Your task to perform on an android device: change notifications settings Image 0: 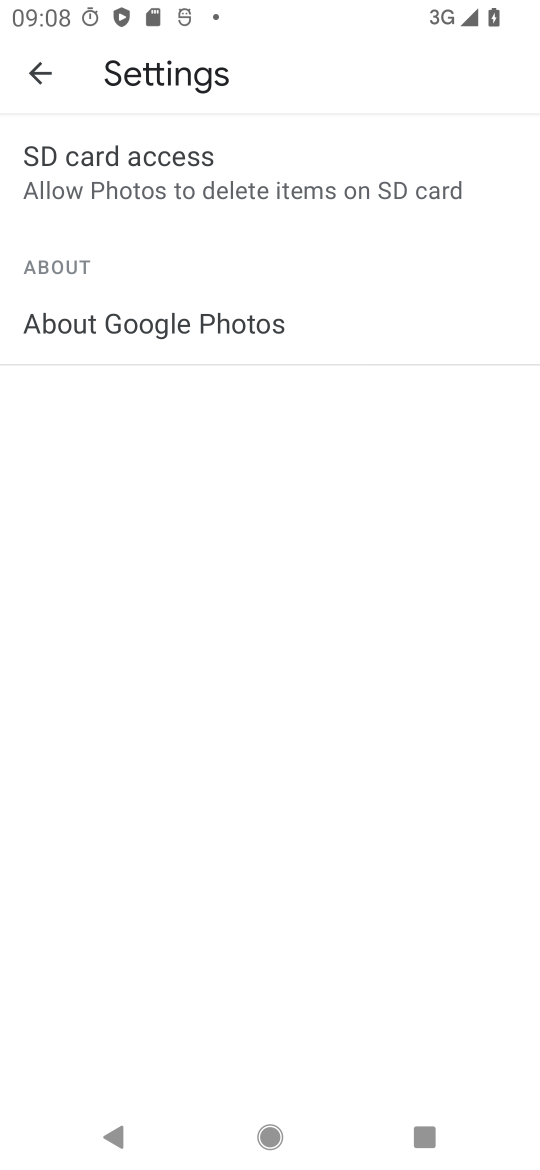
Step 0: press home button
Your task to perform on an android device: change notifications settings Image 1: 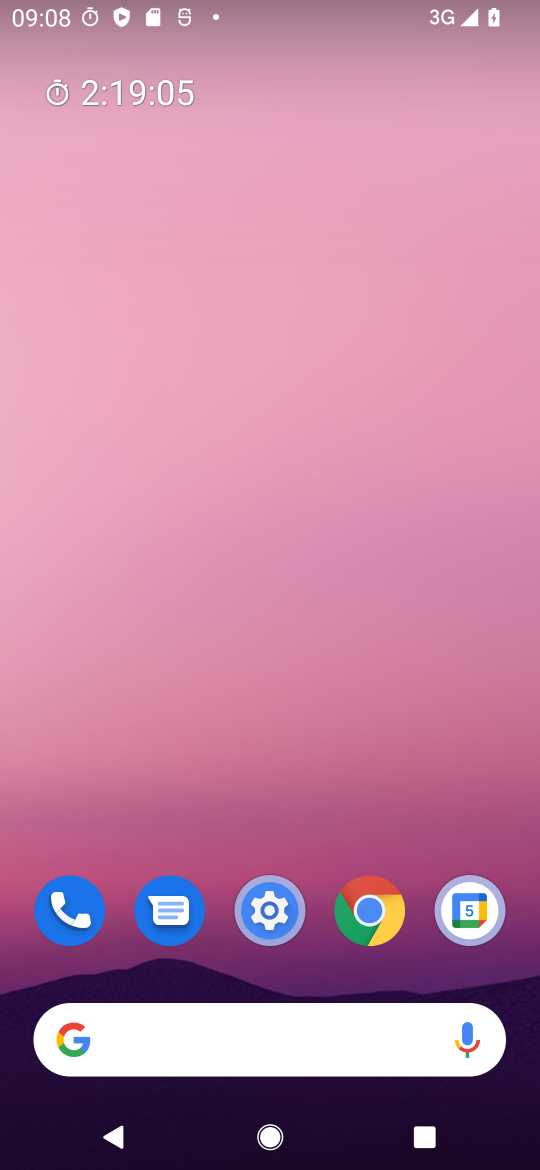
Step 1: drag from (346, 1027) to (376, 51)
Your task to perform on an android device: change notifications settings Image 2: 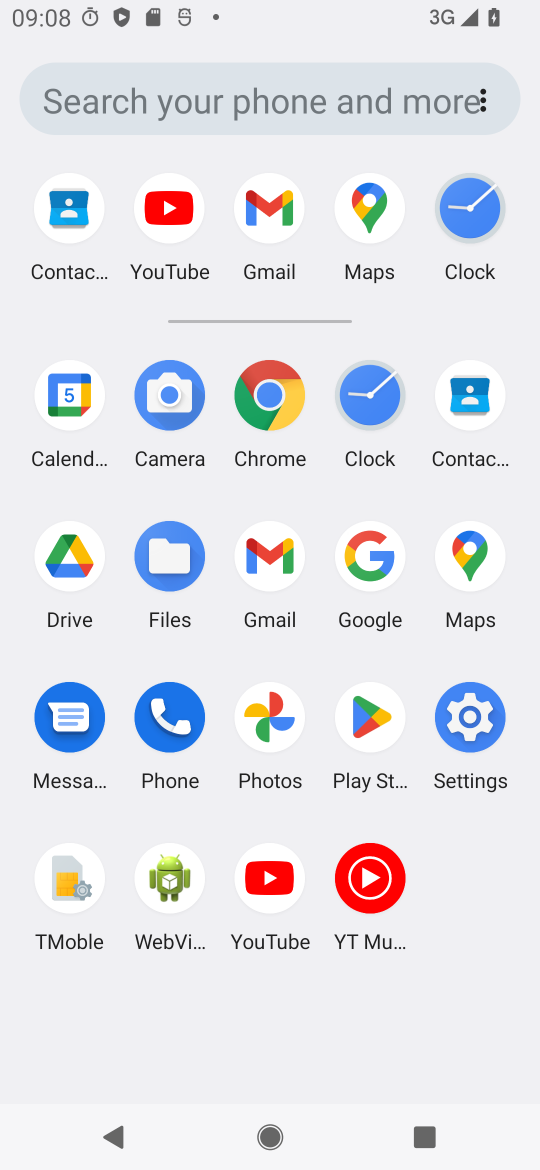
Step 2: click (459, 735)
Your task to perform on an android device: change notifications settings Image 3: 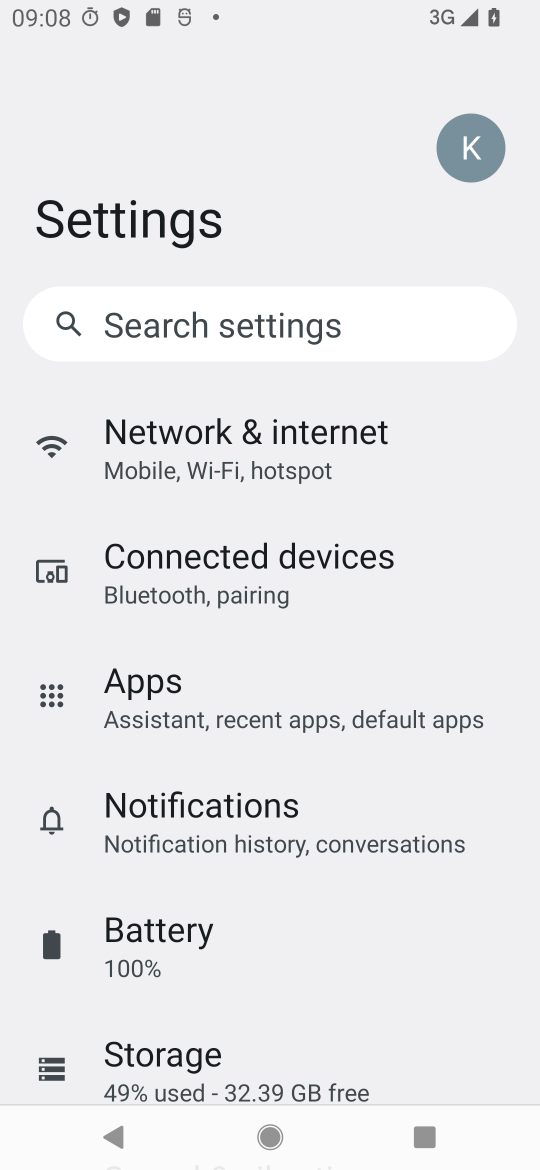
Step 3: click (286, 820)
Your task to perform on an android device: change notifications settings Image 4: 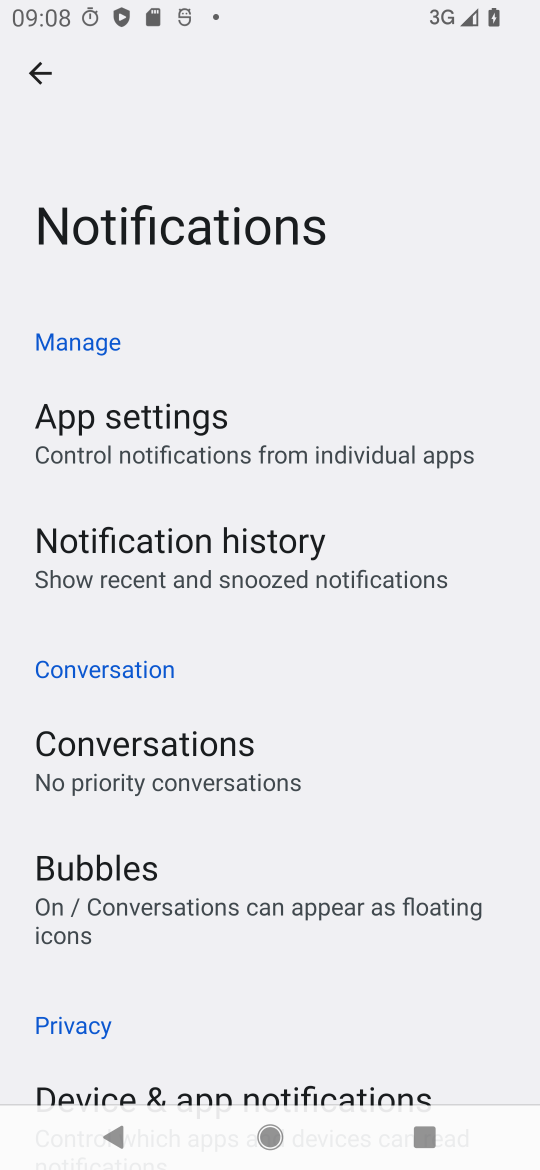
Step 4: click (116, 1091)
Your task to perform on an android device: change notifications settings Image 5: 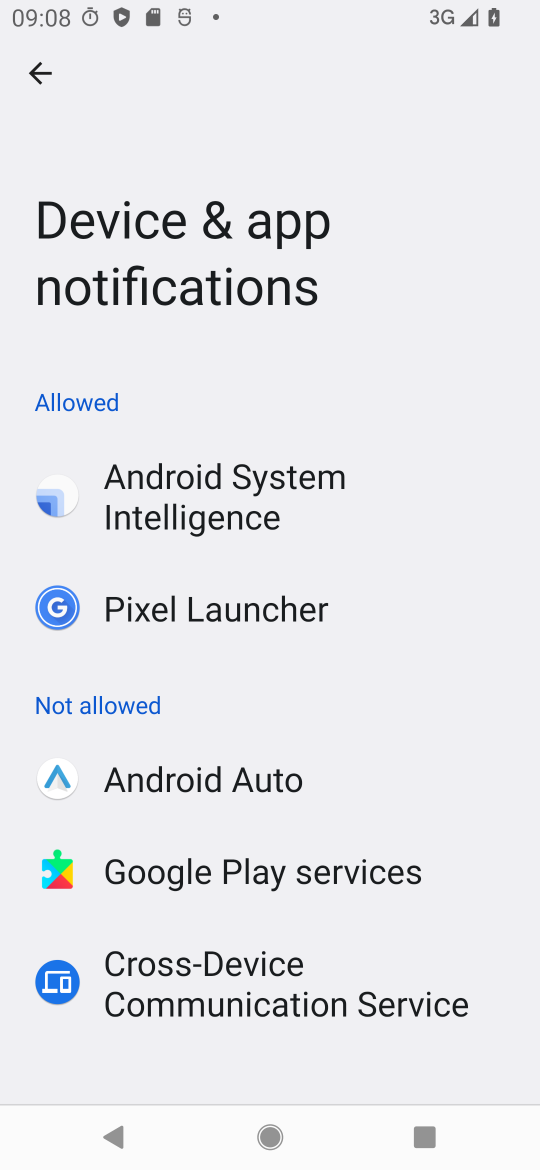
Step 5: task complete